Your task to perform on an android device: Open Yahoo.com Image 0: 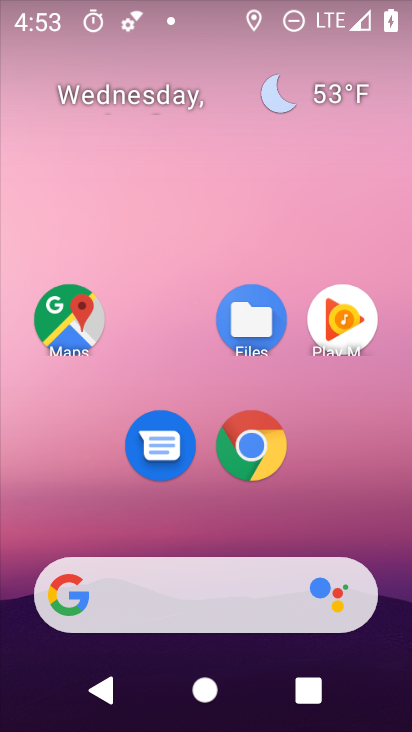
Step 0: click (251, 452)
Your task to perform on an android device: Open Yahoo.com Image 1: 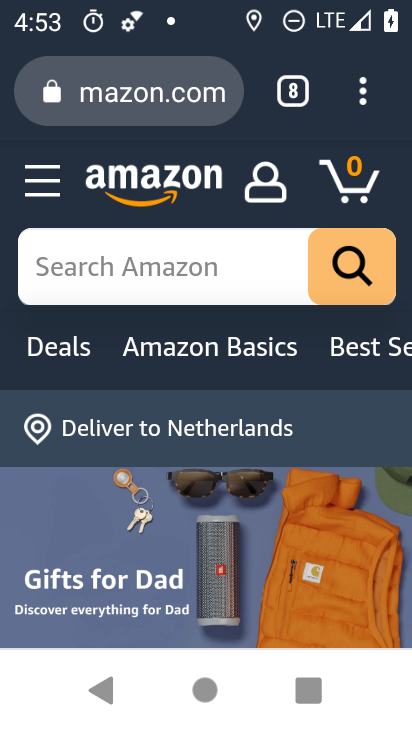
Step 1: click (294, 82)
Your task to perform on an android device: Open Yahoo.com Image 2: 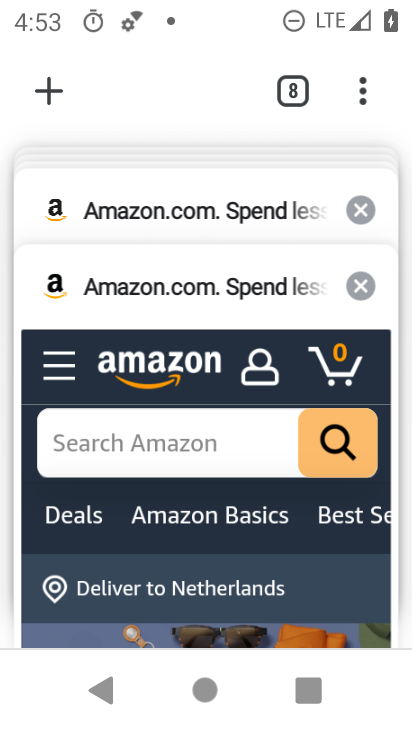
Step 2: drag from (233, 211) to (198, 485)
Your task to perform on an android device: Open Yahoo.com Image 3: 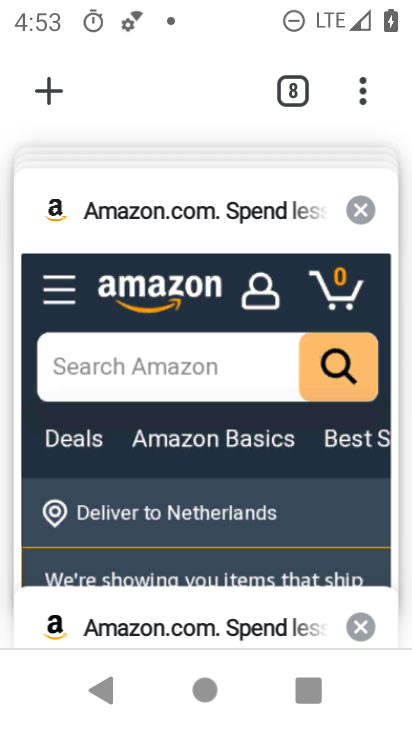
Step 3: drag from (227, 383) to (256, 643)
Your task to perform on an android device: Open Yahoo.com Image 4: 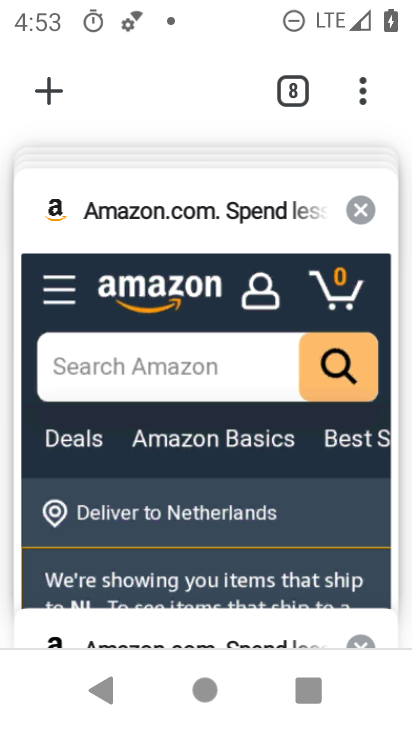
Step 4: drag from (248, 323) to (310, 693)
Your task to perform on an android device: Open Yahoo.com Image 5: 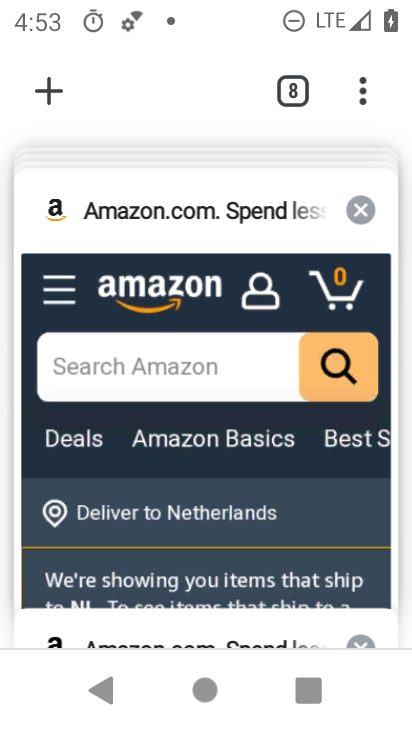
Step 5: drag from (304, 172) to (368, 608)
Your task to perform on an android device: Open Yahoo.com Image 6: 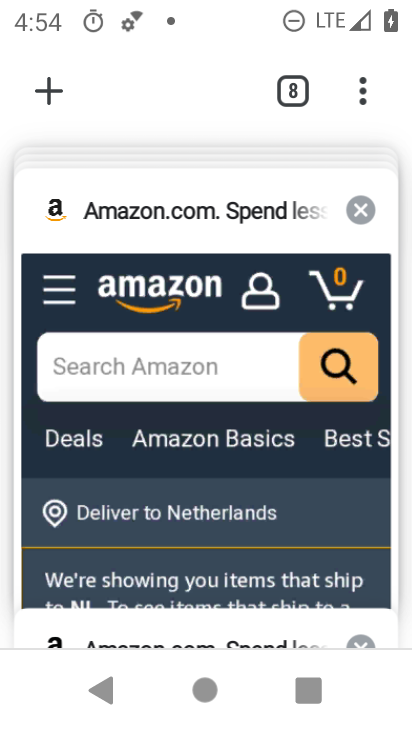
Step 6: drag from (293, 211) to (319, 517)
Your task to perform on an android device: Open Yahoo.com Image 7: 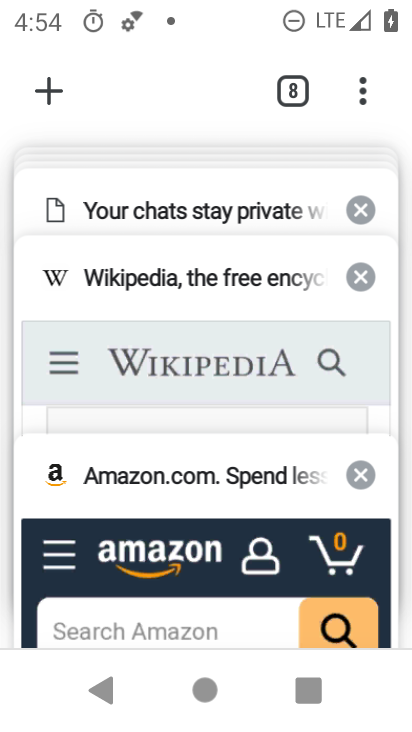
Step 7: drag from (239, 198) to (268, 509)
Your task to perform on an android device: Open Yahoo.com Image 8: 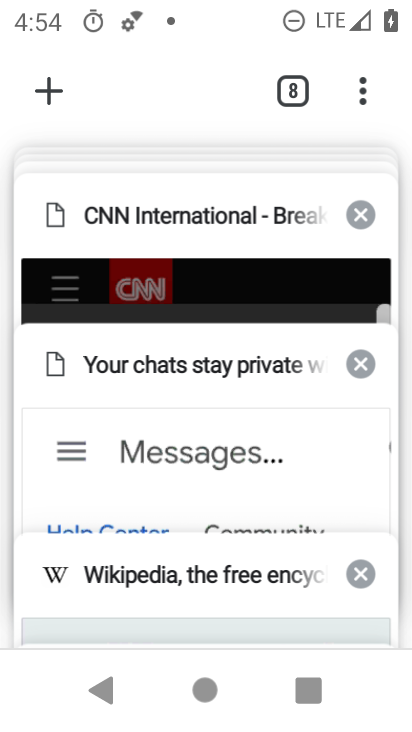
Step 8: drag from (256, 256) to (273, 515)
Your task to perform on an android device: Open Yahoo.com Image 9: 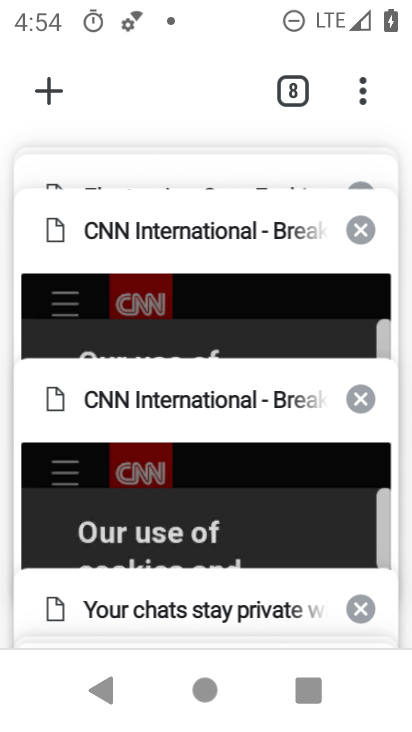
Step 9: drag from (257, 227) to (321, 550)
Your task to perform on an android device: Open Yahoo.com Image 10: 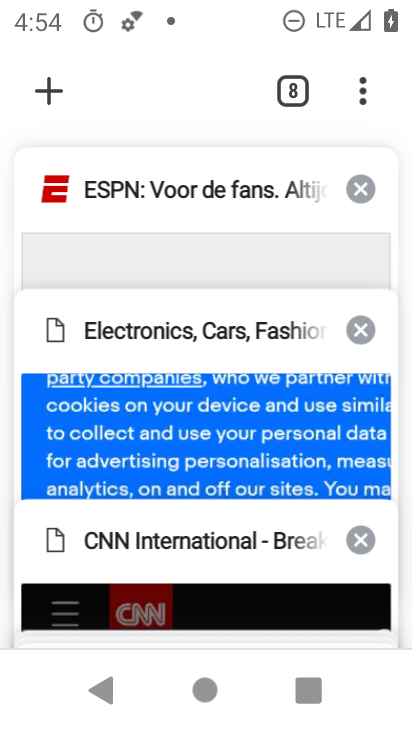
Step 10: drag from (301, 280) to (340, 499)
Your task to perform on an android device: Open Yahoo.com Image 11: 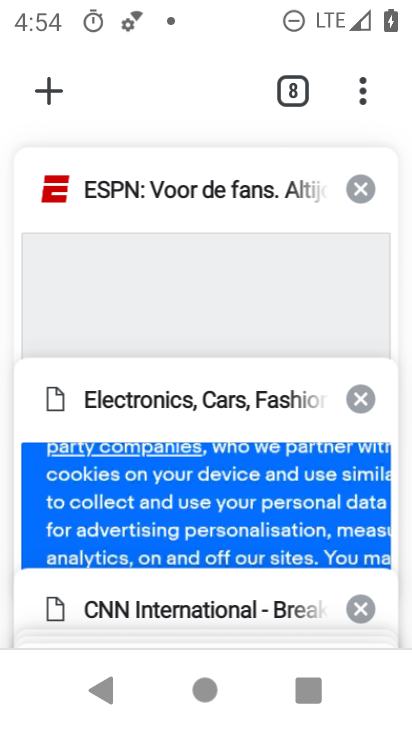
Step 11: click (55, 82)
Your task to perform on an android device: Open Yahoo.com Image 12: 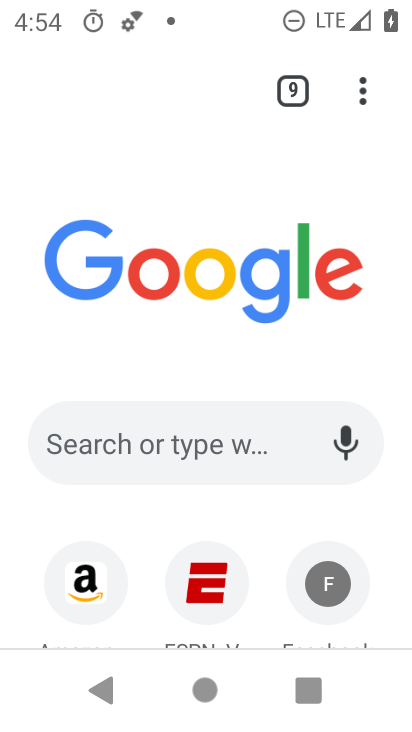
Step 12: drag from (275, 607) to (244, 140)
Your task to perform on an android device: Open Yahoo.com Image 13: 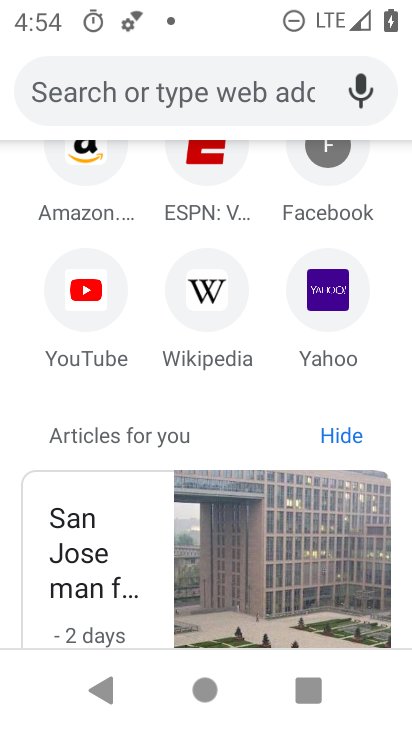
Step 13: click (332, 289)
Your task to perform on an android device: Open Yahoo.com Image 14: 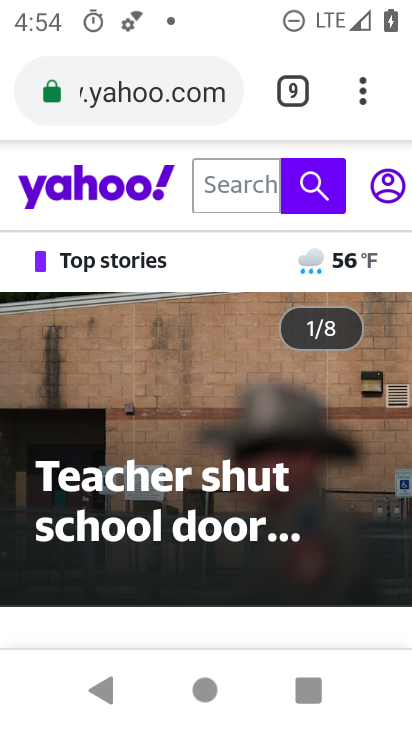
Step 14: task complete